Your task to perform on an android device: toggle pop-ups in chrome Image 0: 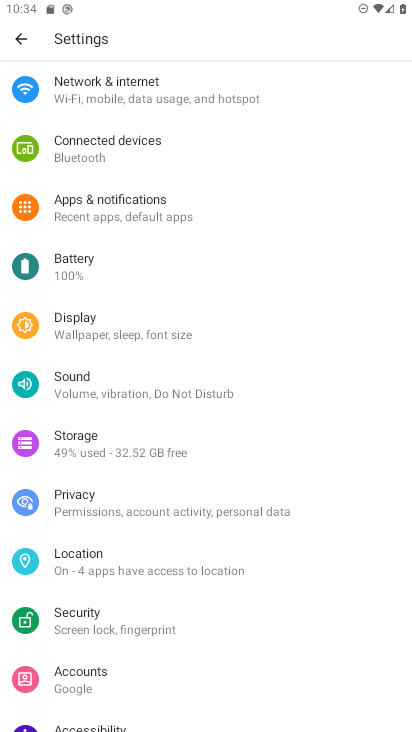
Step 0: press home button
Your task to perform on an android device: toggle pop-ups in chrome Image 1: 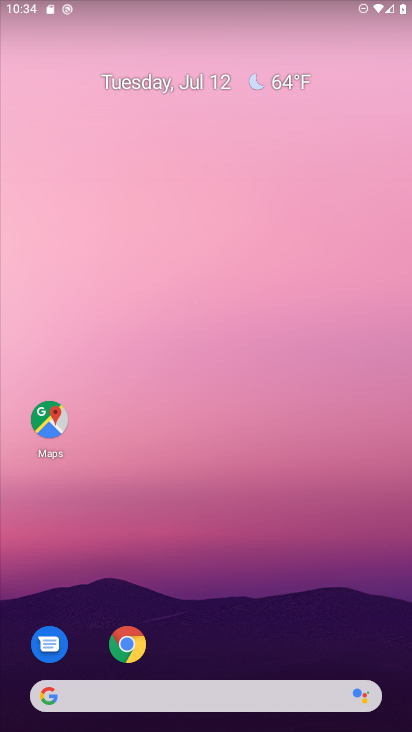
Step 1: click (153, 653)
Your task to perform on an android device: toggle pop-ups in chrome Image 2: 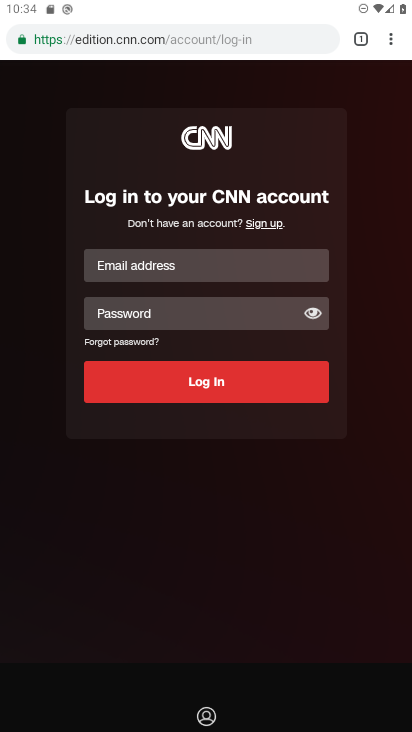
Step 2: click (399, 34)
Your task to perform on an android device: toggle pop-ups in chrome Image 3: 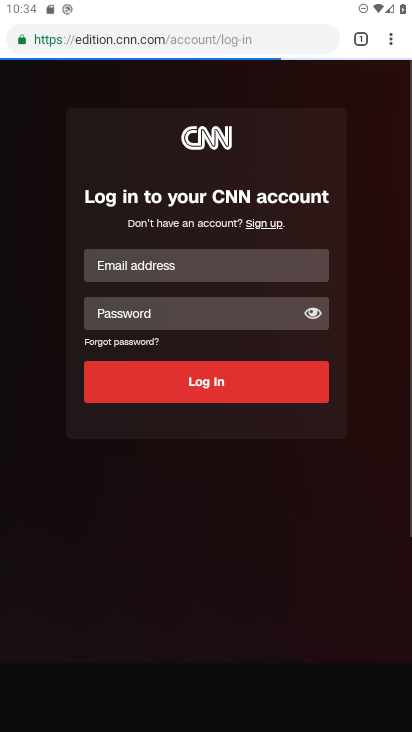
Step 3: click (394, 38)
Your task to perform on an android device: toggle pop-ups in chrome Image 4: 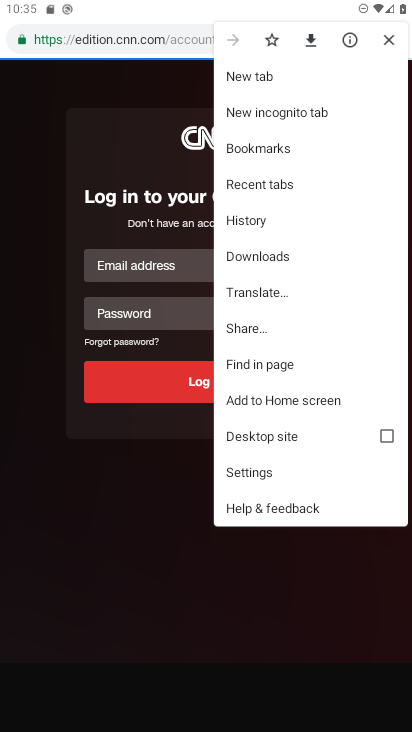
Step 4: click (266, 461)
Your task to perform on an android device: toggle pop-ups in chrome Image 5: 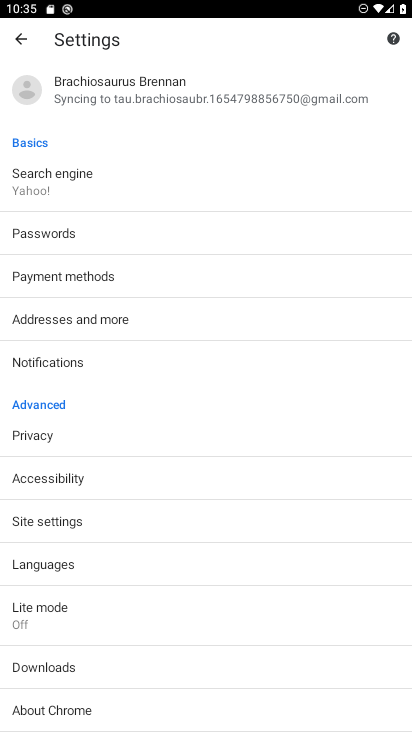
Step 5: click (155, 529)
Your task to perform on an android device: toggle pop-ups in chrome Image 6: 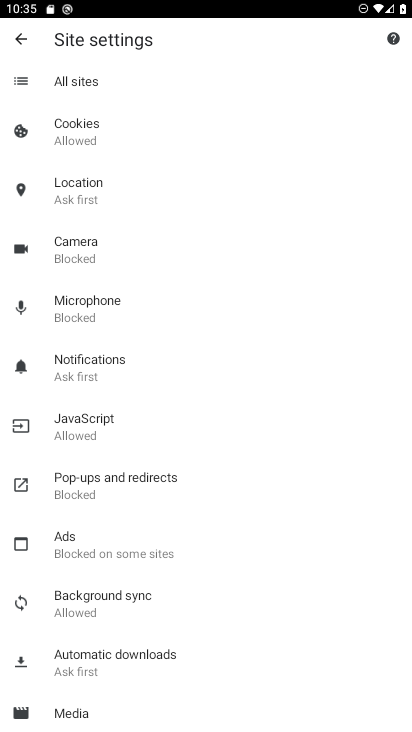
Step 6: click (172, 507)
Your task to perform on an android device: toggle pop-ups in chrome Image 7: 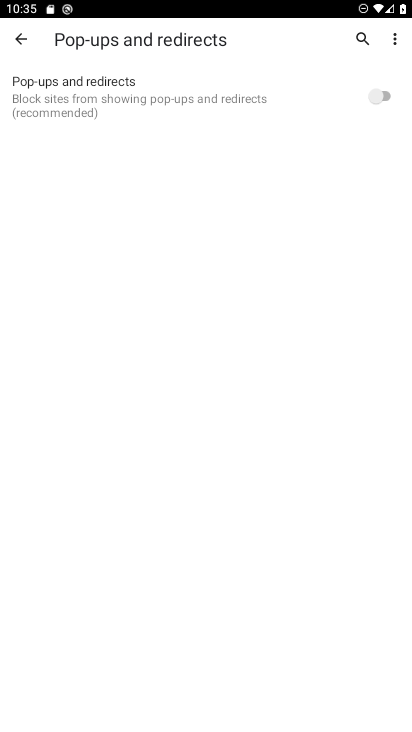
Step 7: click (389, 94)
Your task to perform on an android device: toggle pop-ups in chrome Image 8: 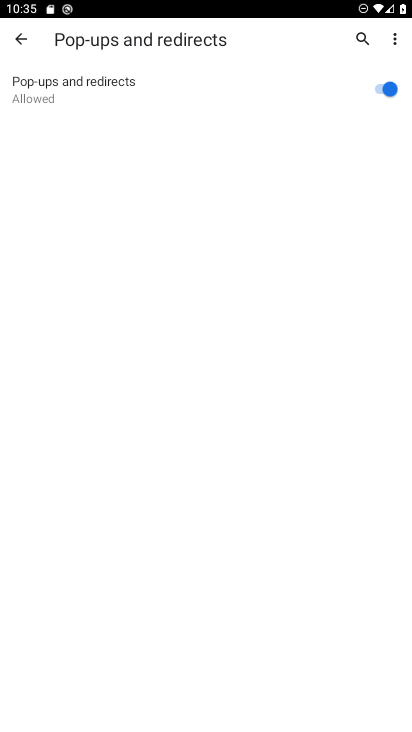
Step 8: task complete